Your task to perform on an android device: turn on javascript in the chrome app Image 0: 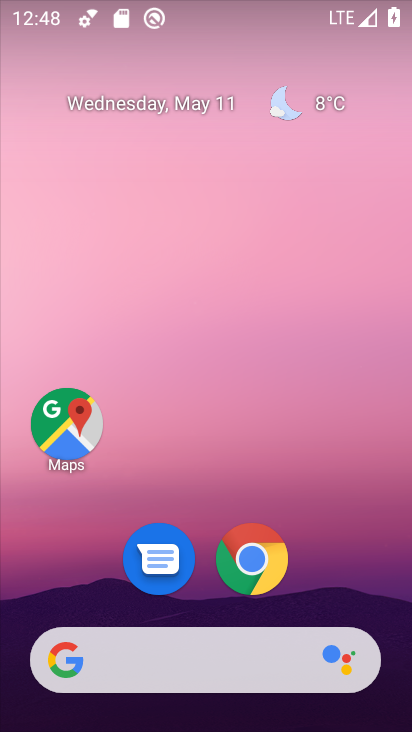
Step 0: click (246, 562)
Your task to perform on an android device: turn on javascript in the chrome app Image 1: 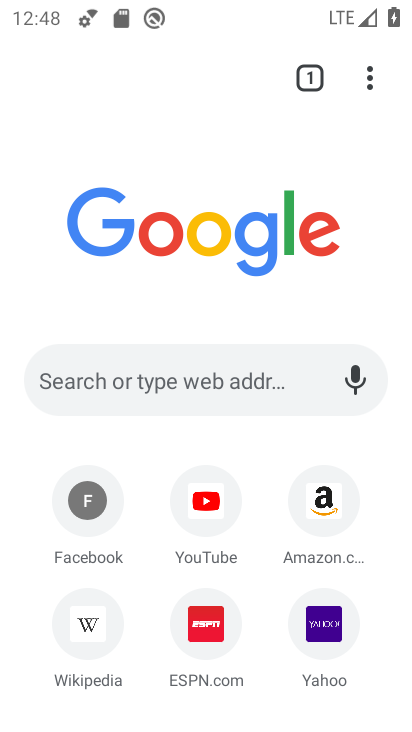
Step 1: click (370, 86)
Your task to perform on an android device: turn on javascript in the chrome app Image 2: 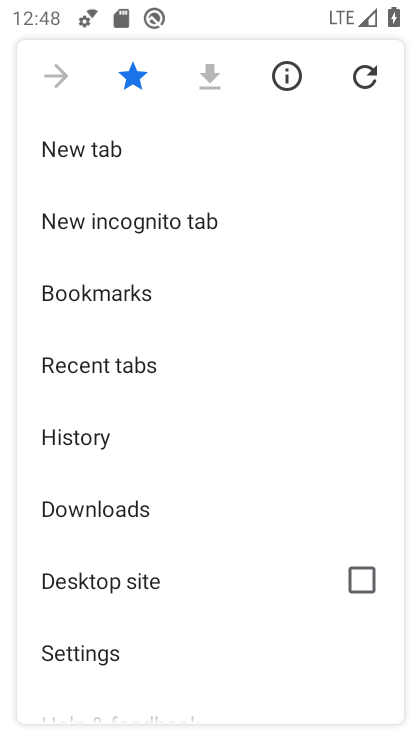
Step 2: click (81, 650)
Your task to perform on an android device: turn on javascript in the chrome app Image 3: 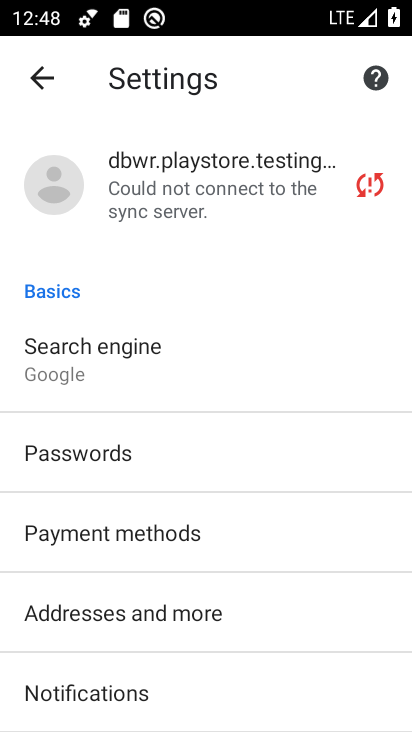
Step 3: drag from (120, 662) to (170, 244)
Your task to perform on an android device: turn on javascript in the chrome app Image 4: 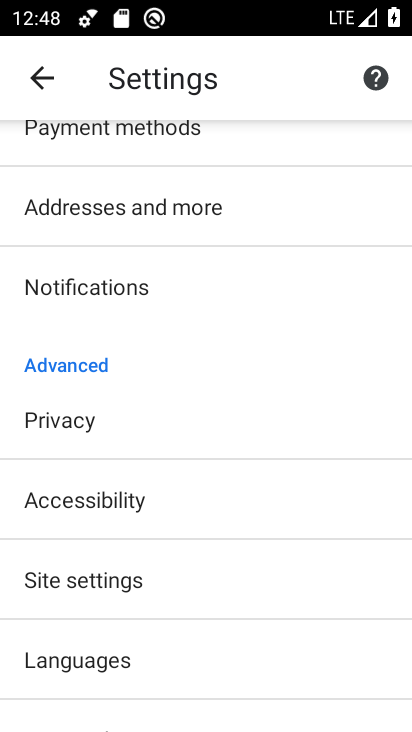
Step 4: drag from (136, 637) to (167, 354)
Your task to perform on an android device: turn on javascript in the chrome app Image 5: 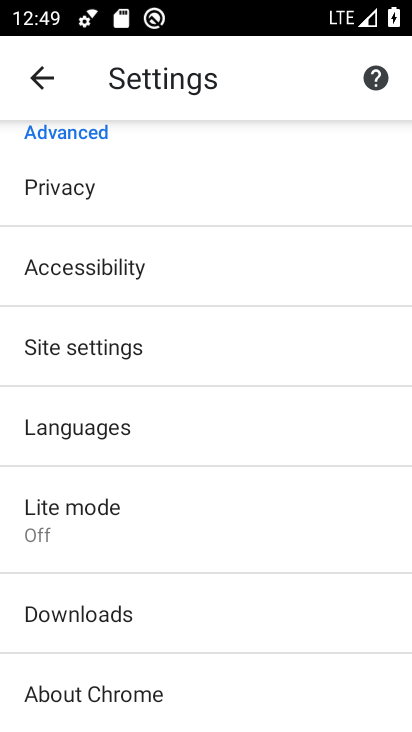
Step 5: click (120, 356)
Your task to perform on an android device: turn on javascript in the chrome app Image 6: 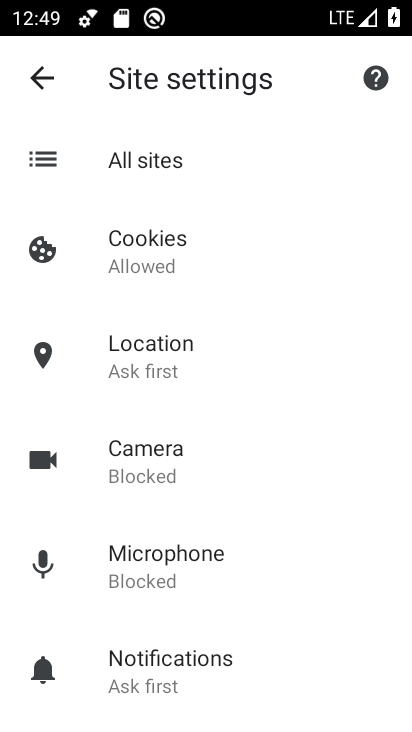
Step 6: drag from (159, 657) to (164, 270)
Your task to perform on an android device: turn on javascript in the chrome app Image 7: 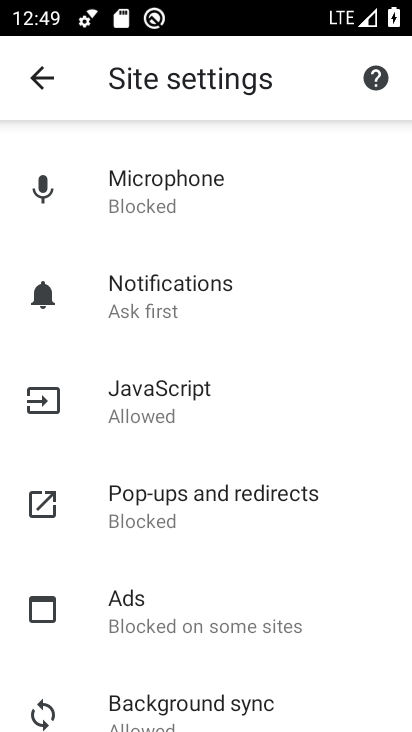
Step 7: click (161, 389)
Your task to perform on an android device: turn on javascript in the chrome app Image 8: 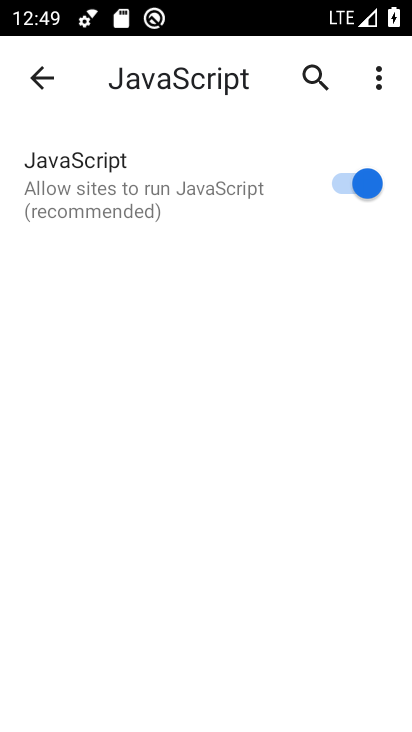
Step 8: task complete